Your task to perform on an android device: visit the assistant section in the google photos Image 0: 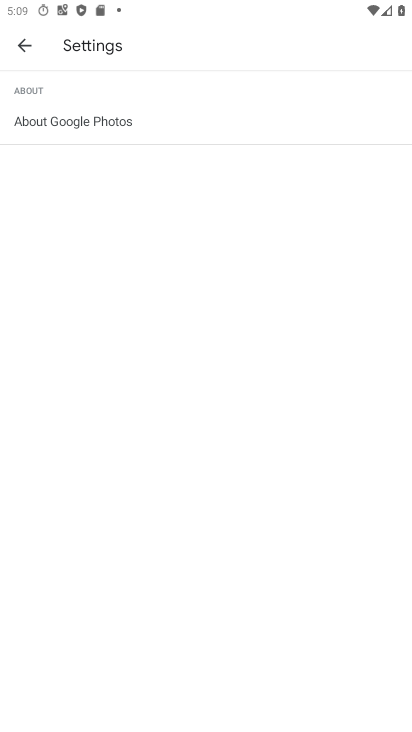
Step 0: press home button
Your task to perform on an android device: visit the assistant section in the google photos Image 1: 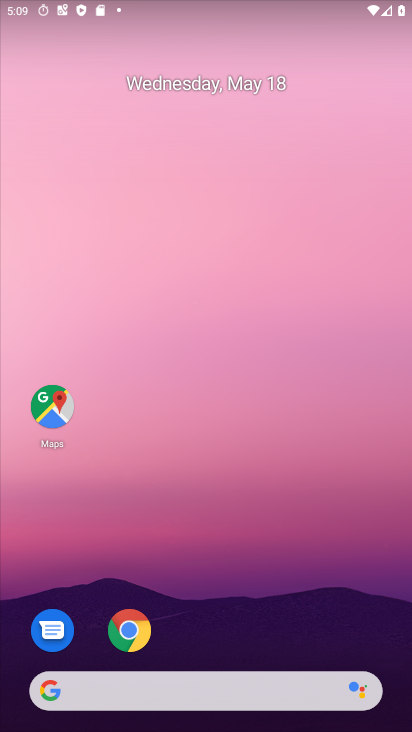
Step 1: drag from (169, 654) to (169, 326)
Your task to perform on an android device: visit the assistant section in the google photos Image 2: 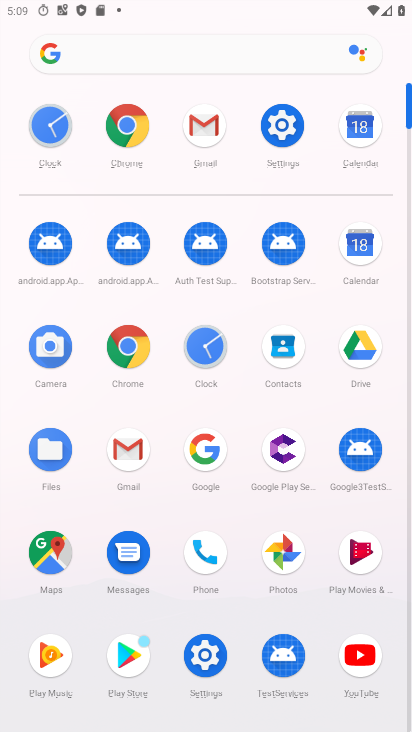
Step 2: click (276, 555)
Your task to perform on an android device: visit the assistant section in the google photos Image 3: 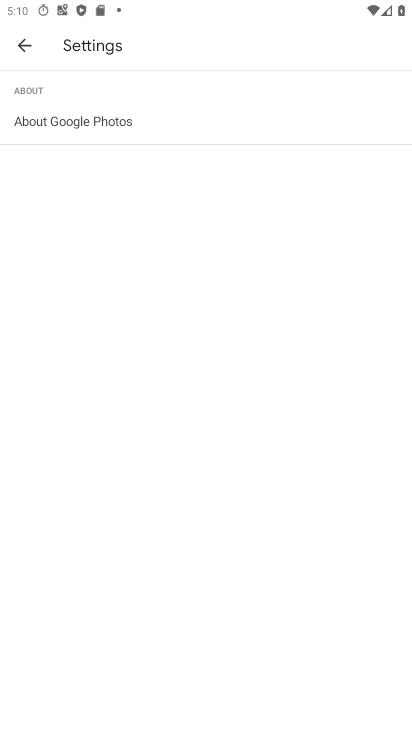
Step 3: press home button
Your task to perform on an android device: visit the assistant section in the google photos Image 4: 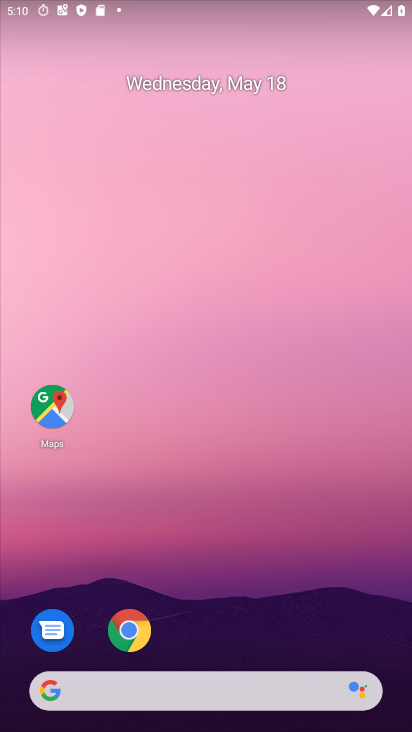
Step 4: drag from (203, 588) to (203, 190)
Your task to perform on an android device: visit the assistant section in the google photos Image 5: 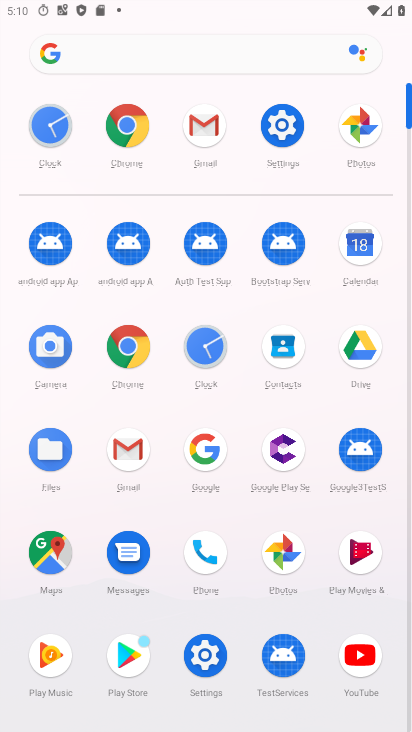
Step 5: click (286, 550)
Your task to perform on an android device: visit the assistant section in the google photos Image 6: 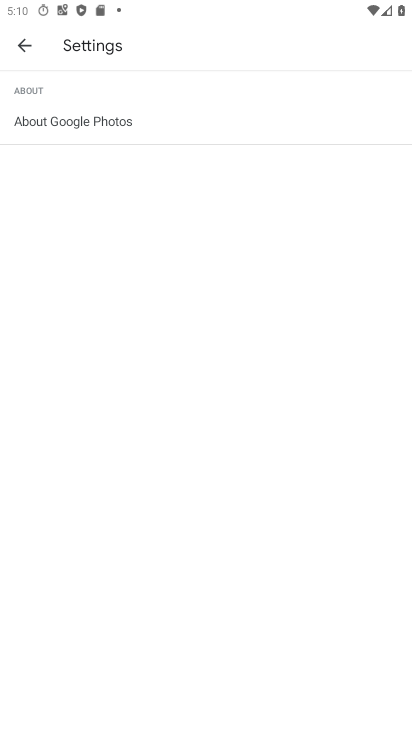
Step 6: click (18, 49)
Your task to perform on an android device: visit the assistant section in the google photos Image 7: 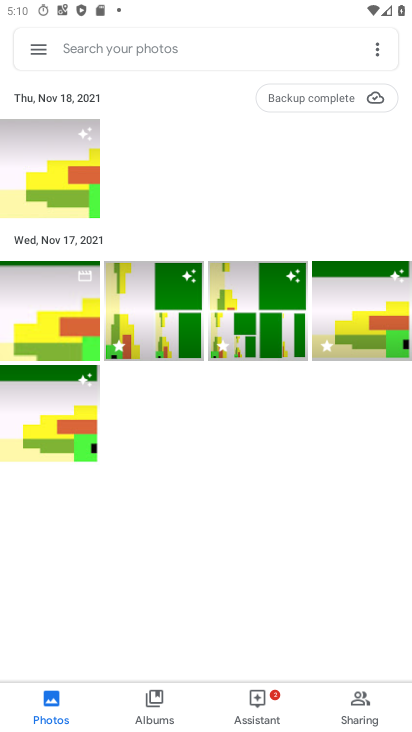
Step 7: click (250, 705)
Your task to perform on an android device: visit the assistant section in the google photos Image 8: 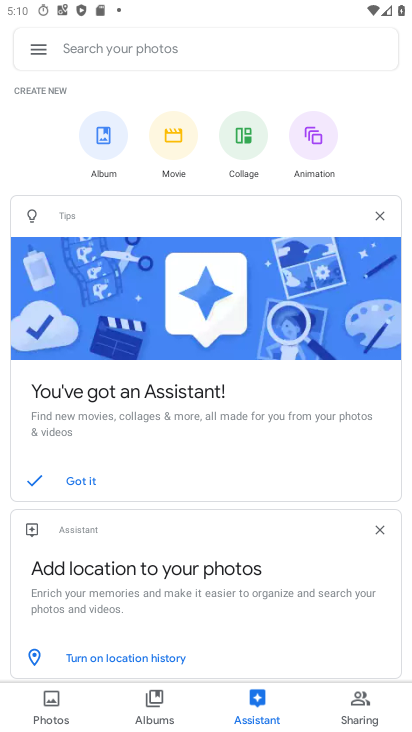
Step 8: task complete